Your task to perform on an android device: visit the assistant section in the google photos Image 0: 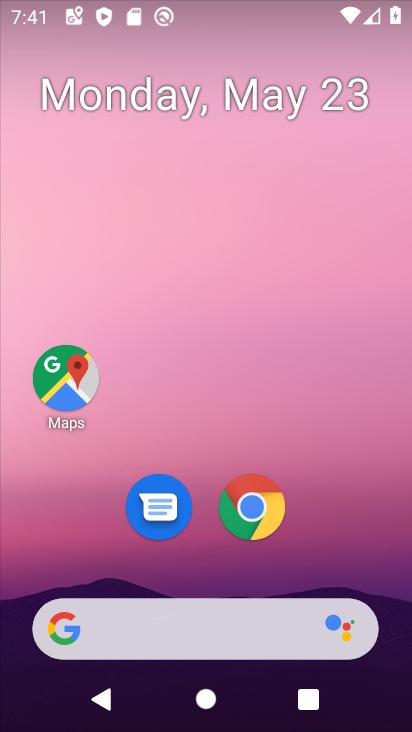
Step 0: drag from (325, 564) to (382, 186)
Your task to perform on an android device: visit the assistant section in the google photos Image 1: 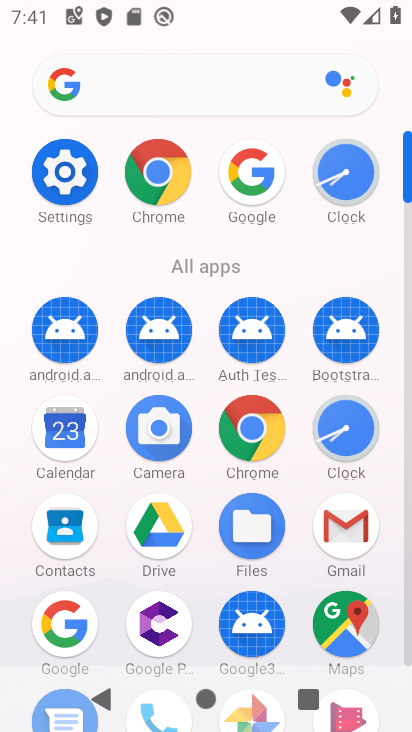
Step 1: drag from (181, 655) to (267, 324)
Your task to perform on an android device: visit the assistant section in the google photos Image 2: 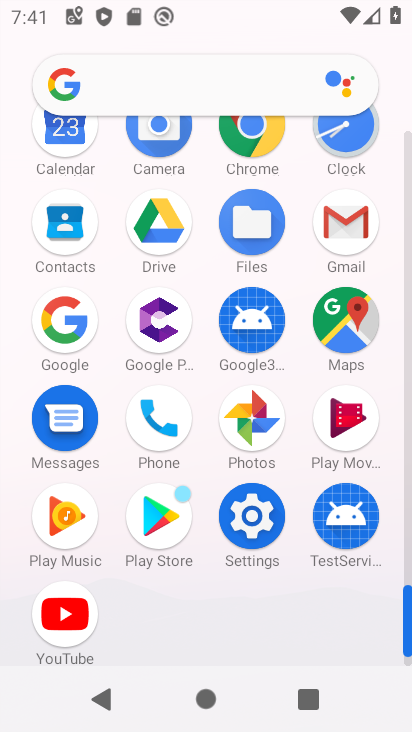
Step 2: click (235, 408)
Your task to perform on an android device: visit the assistant section in the google photos Image 3: 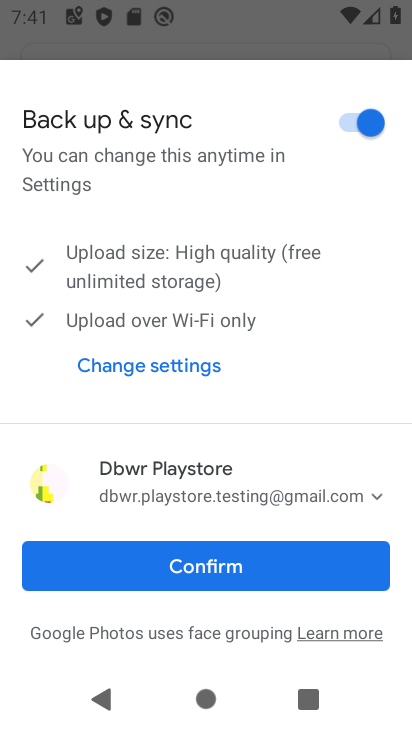
Step 3: click (276, 571)
Your task to perform on an android device: visit the assistant section in the google photos Image 4: 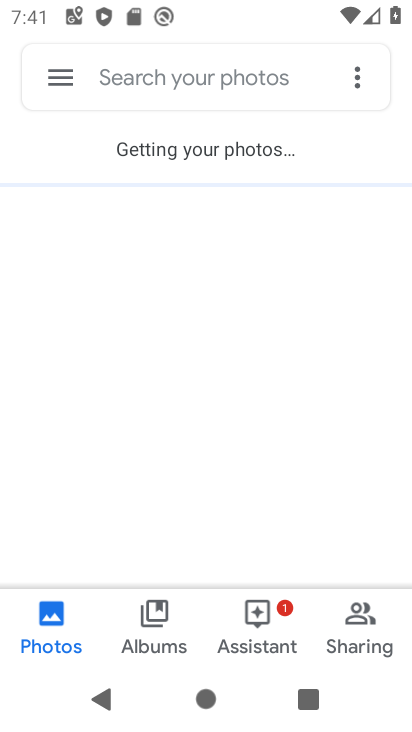
Step 4: click (271, 631)
Your task to perform on an android device: visit the assistant section in the google photos Image 5: 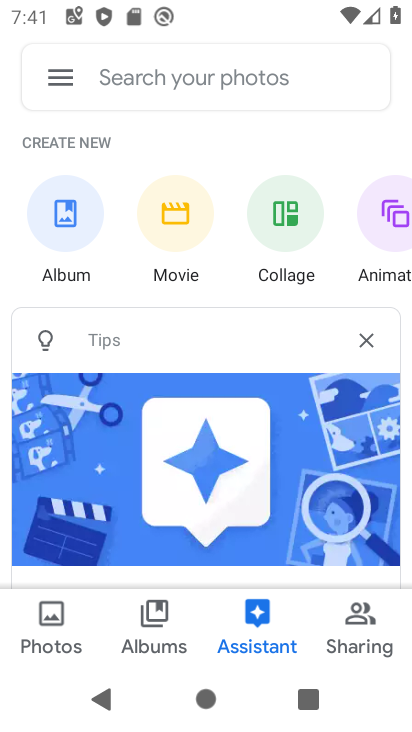
Step 5: task complete